Your task to perform on an android device: turn on sleep mode Image 0: 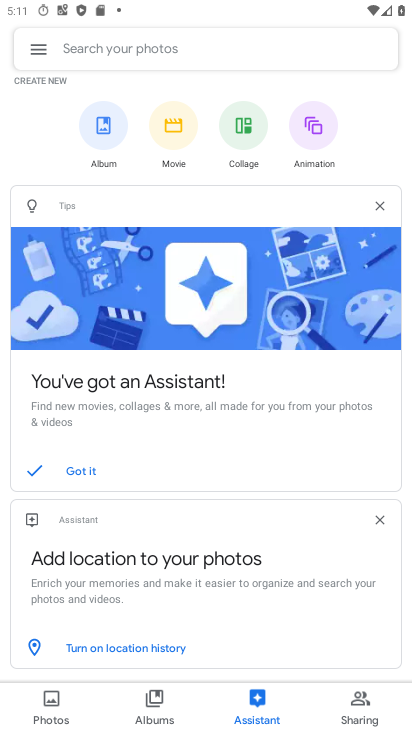
Step 0: press home button
Your task to perform on an android device: turn on sleep mode Image 1: 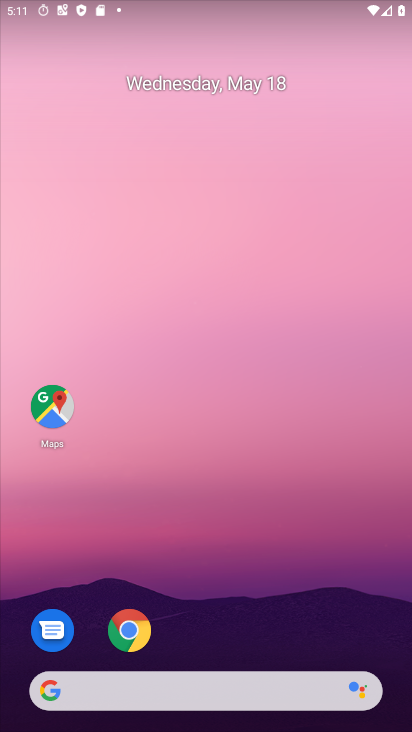
Step 1: drag from (206, 659) to (219, 232)
Your task to perform on an android device: turn on sleep mode Image 2: 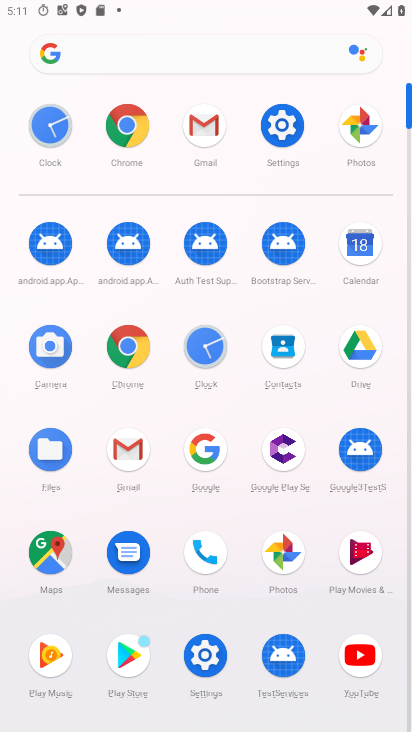
Step 2: click (283, 128)
Your task to perform on an android device: turn on sleep mode Image 3: 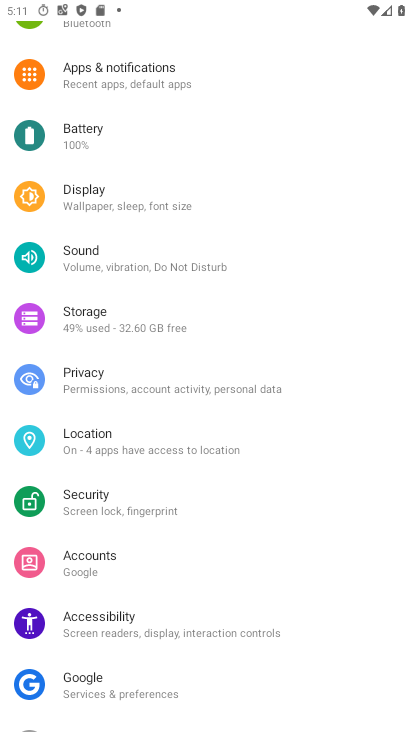
Step 3: drag from (202, 62) to (201, 459)
Your task to perform on an android device: turn on sleep mode Image 4: 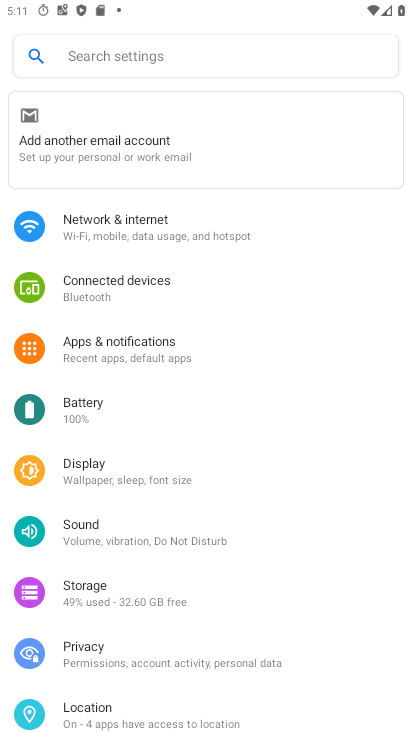
Step 4: click (116, 472)
Your task to perform on an android device: turn on sleep mode Image 5: 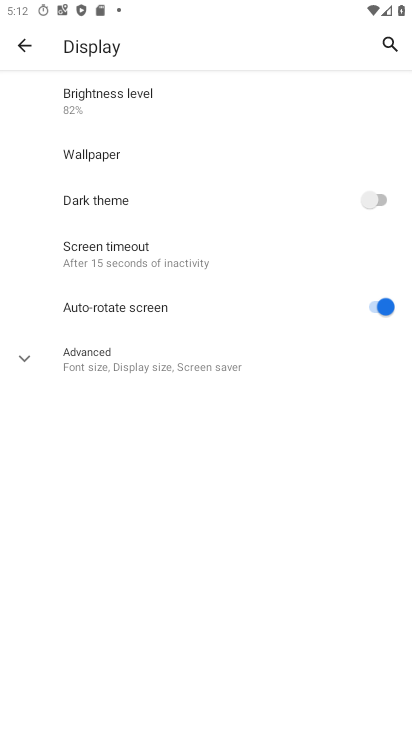
Step 5: click (135, 369)
Your task to perform on an android device: turn on sleep mode Image 6: 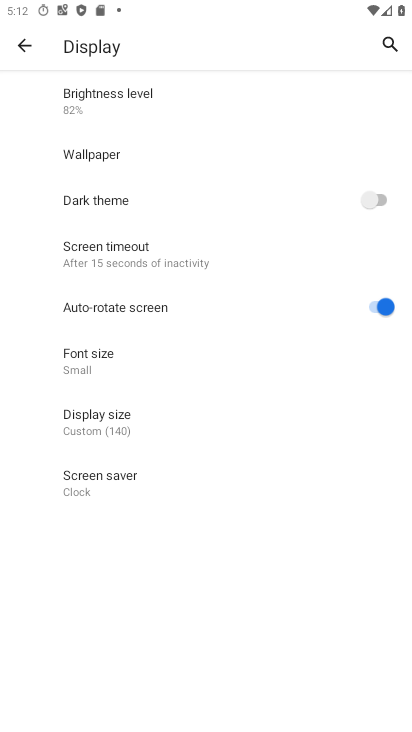
Step 6: task complete